Your task to perform on an android device: find photos in the google photos app Image 0: 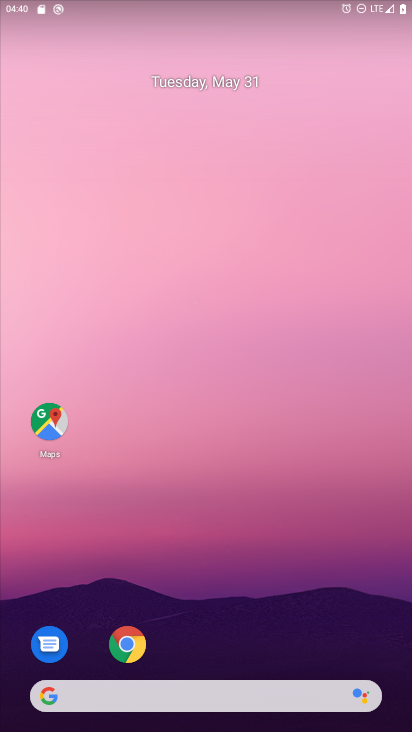
Step 0: drag from (285, 542) to (284, 182)
Your task to perform on an android device: find photos in the google photos app Image 1: 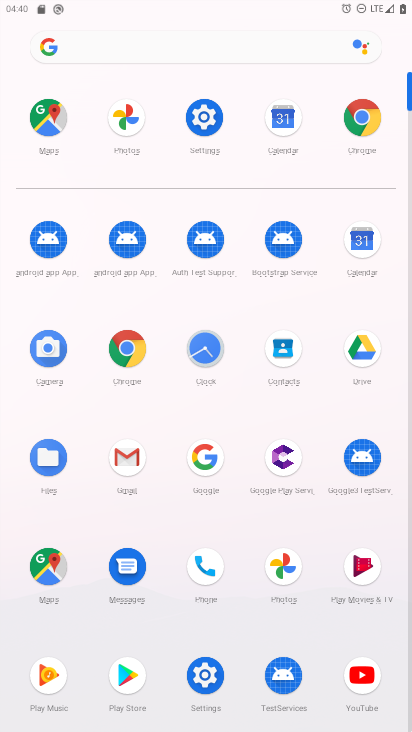
Step 1: click (277, 570)
Your task to perform on an android device: find photos in the google photos app Image 2: 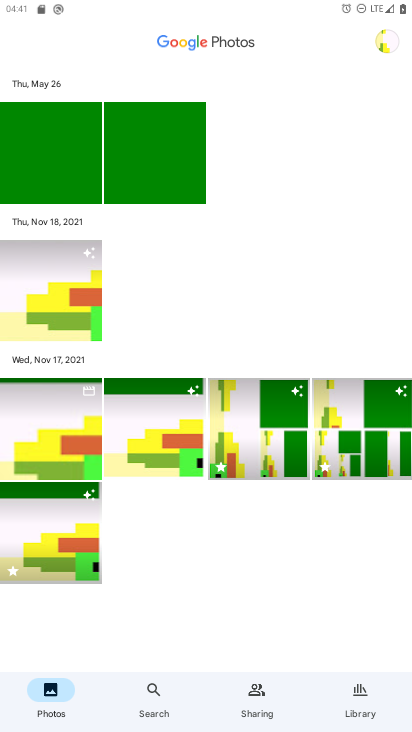
Step 2: task complete